Your task to perform on an android device: turn notification dots off Image 0: 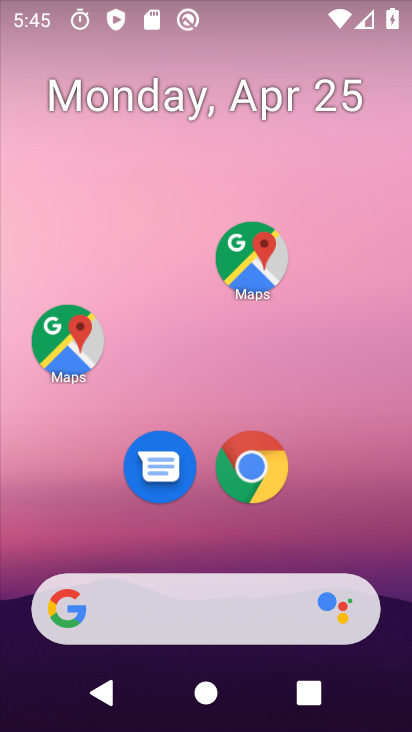
Step 0: drag from (299, 584) to (248, 78)
Your task to perform on an android device: turn notification dots off Image 1: 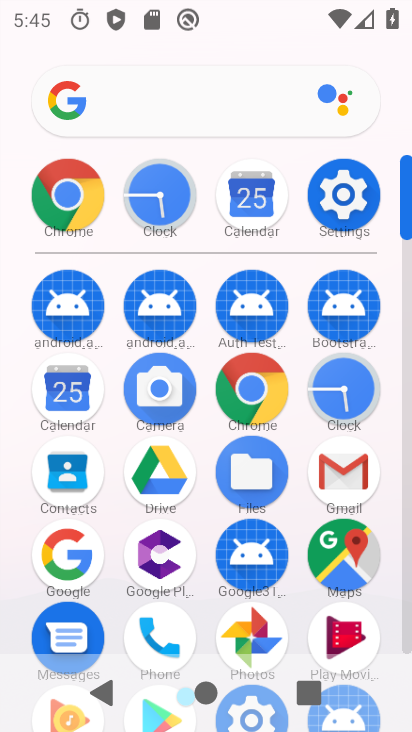
Step 1: drag from (299, 641) to (335, 35)
Your task to perform on an android device: turn notification dots off Image 2: 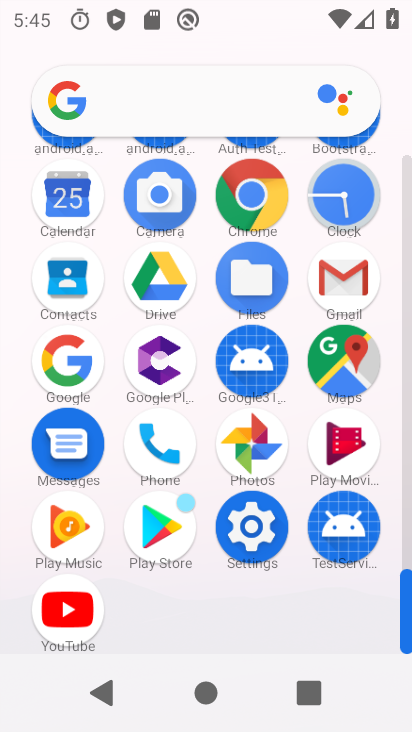
Step 2: click (243, 528)
Your task to perform on an android device: turn notification dots off Image 3: 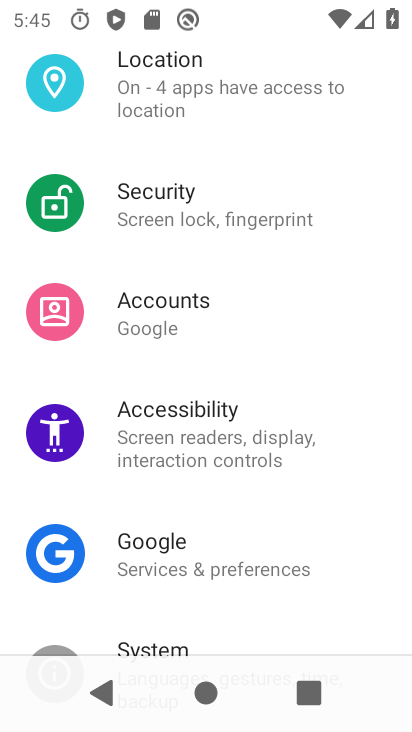
Step 3: drag from (224, 185) to (250, 685)
Your task to perform on an android device: turn notification dots off Image 4: 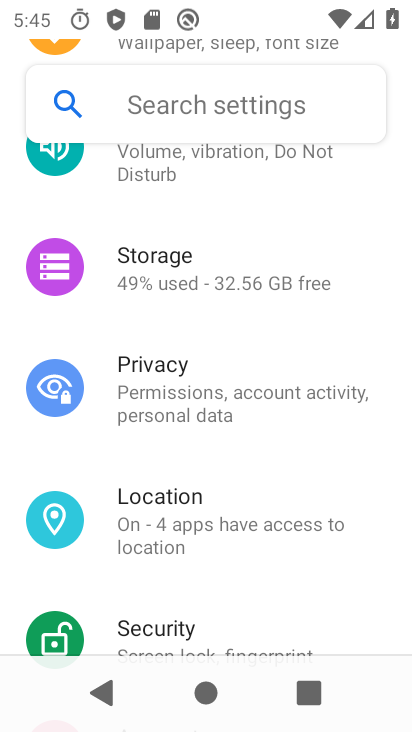
Step 4: drag from (268, 215) to (300, 598)
Your task to perform on an android device: turn notification dots off Image 5: 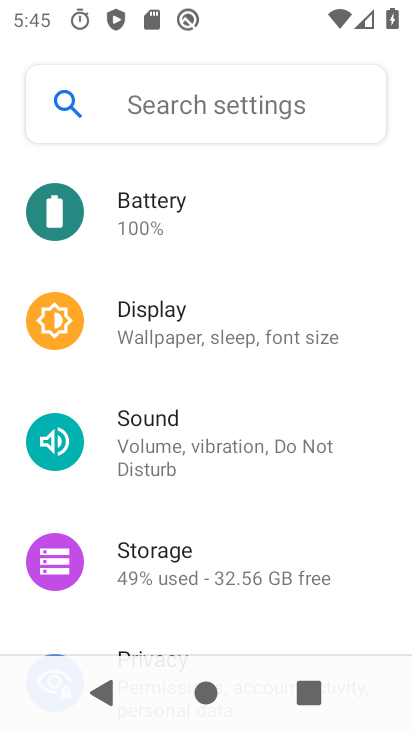
Step 5: drag from (247, 176) to (272, 604)
Your task to perform on an android device: turn notification dots off Image 6: 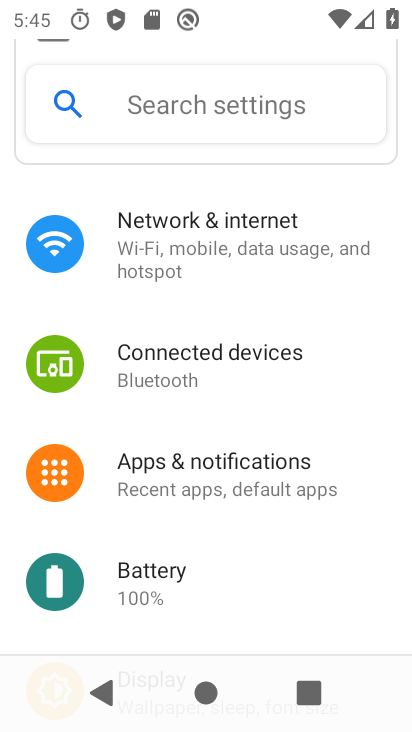
Step 6: click (254, 488)
Your task to perform on an android device: turn notification dots off Image 7: 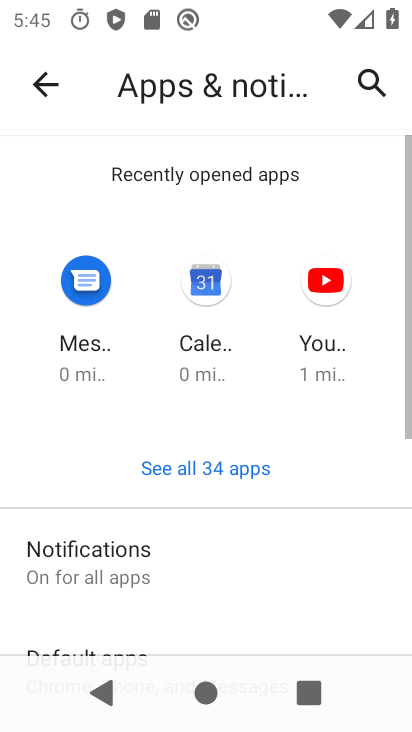
Step 7: drag from (205, 615) to (254, 97)
Your task to perform on an android device: turn notification dots off Image 8: 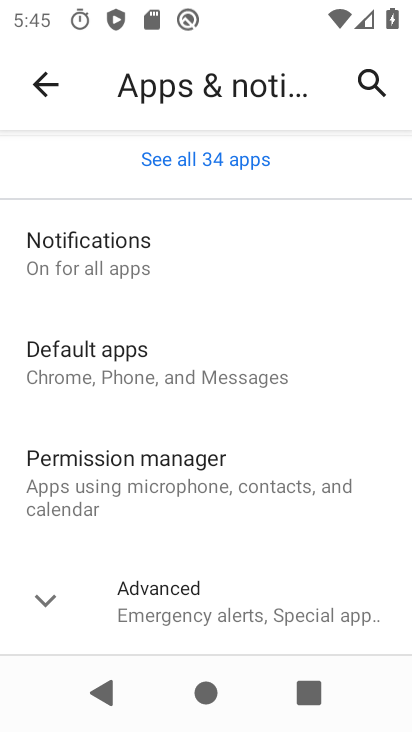
Step 8: click (140, 275)
Your task to perform on an android device: turn notification dots off Image 9: 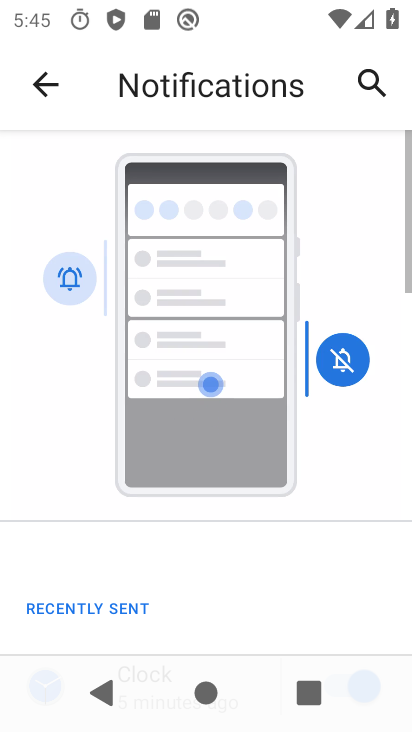
Step 9: drag from (300, 628) to (324, 50)
Your task to perform on an android device: turn notification dots off Image 10: 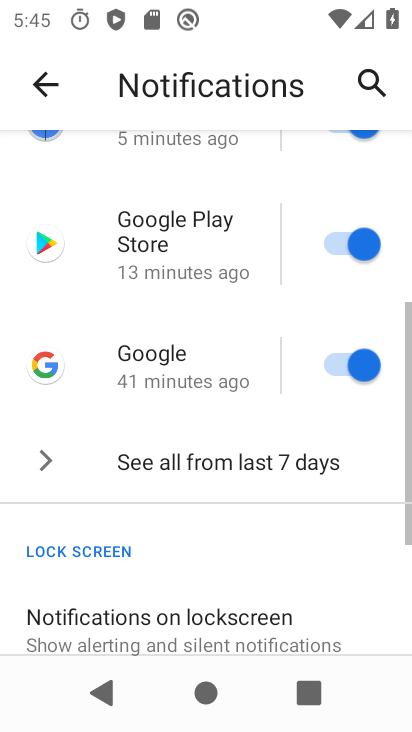
Step 10: drag from (275, 616) to (298, 220)
Your task to perform on an android device: turn notification dots off Image 11: 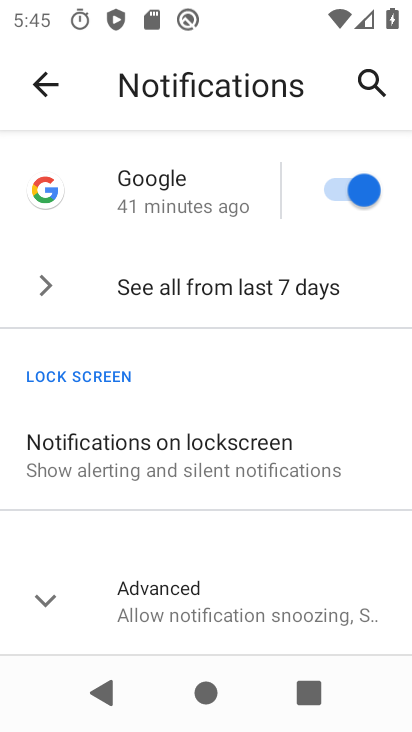
Step 11: click (297, 617)
Your task to perform on an android device: turn notification dots off Image 12: 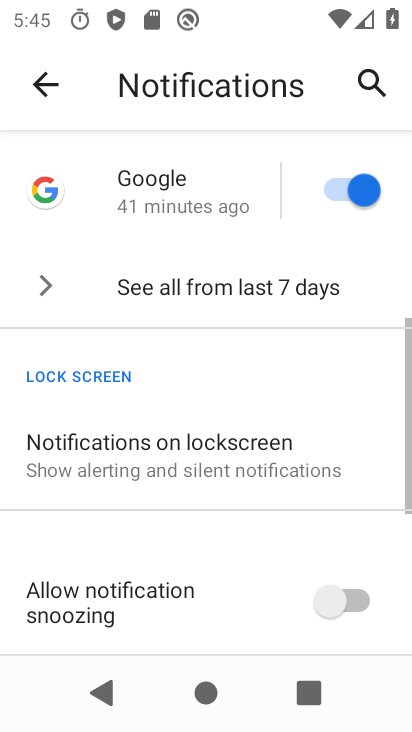
Step 12: drag from (297, 574) to (305, 94)
Your task to perform on an android device: turn notification dots off Image 13: 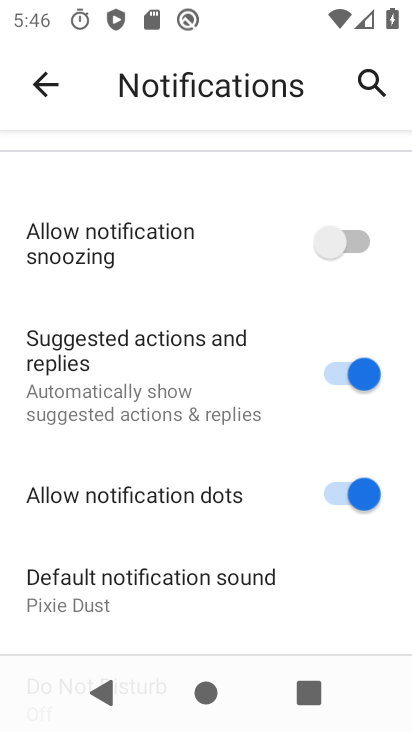
Step 13: click (334, 494)
Your task to perform on an android device: turn notification dots off Image 14: 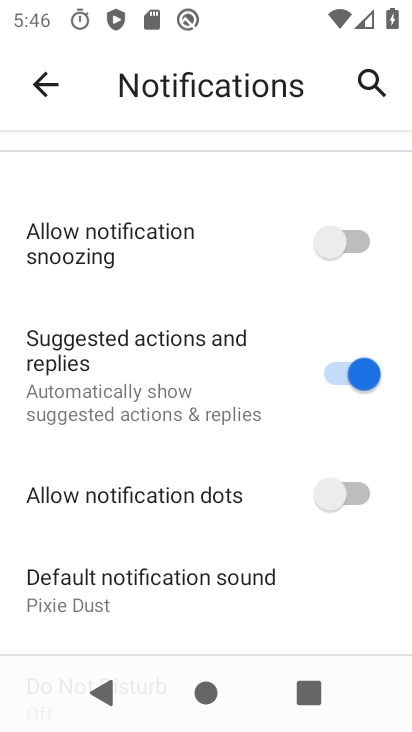
Step 14: task complete